Your task to perform on an android device: Open settings on Google Maps Image 0: 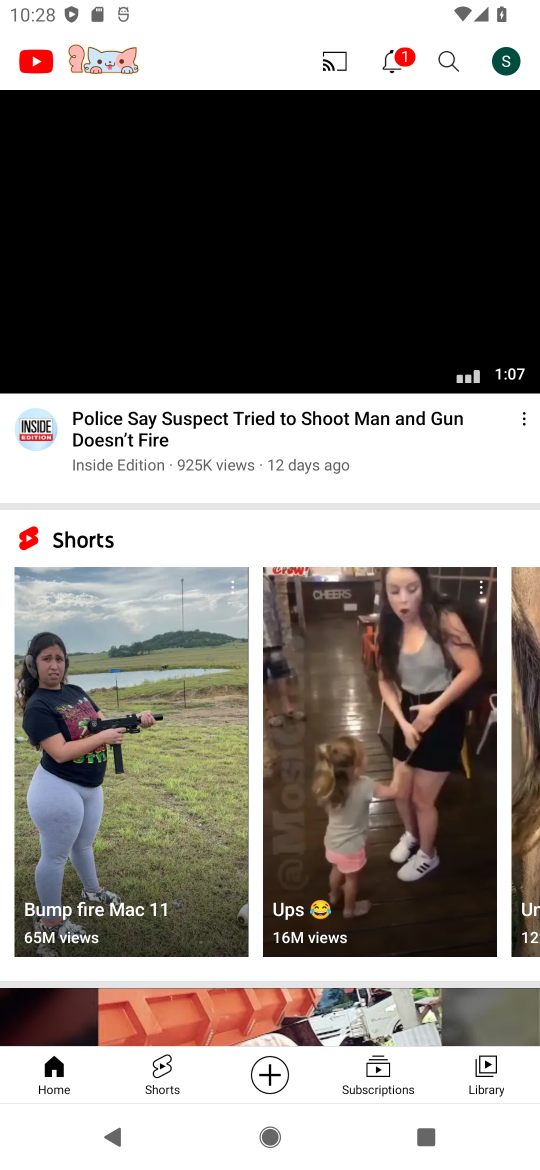
Step 0: press home button
Your task to perform on an android device: Open settings on Google Maps Image 1: 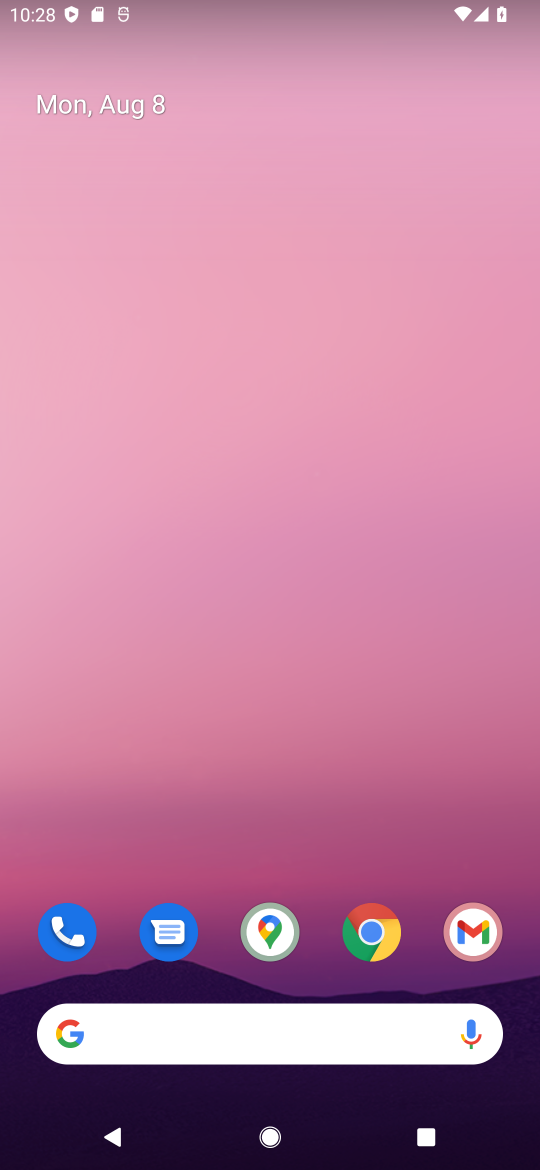
Step 1: click (288, 941)
Your task to perform on an android device: Open settings on Google Maps Image 2: 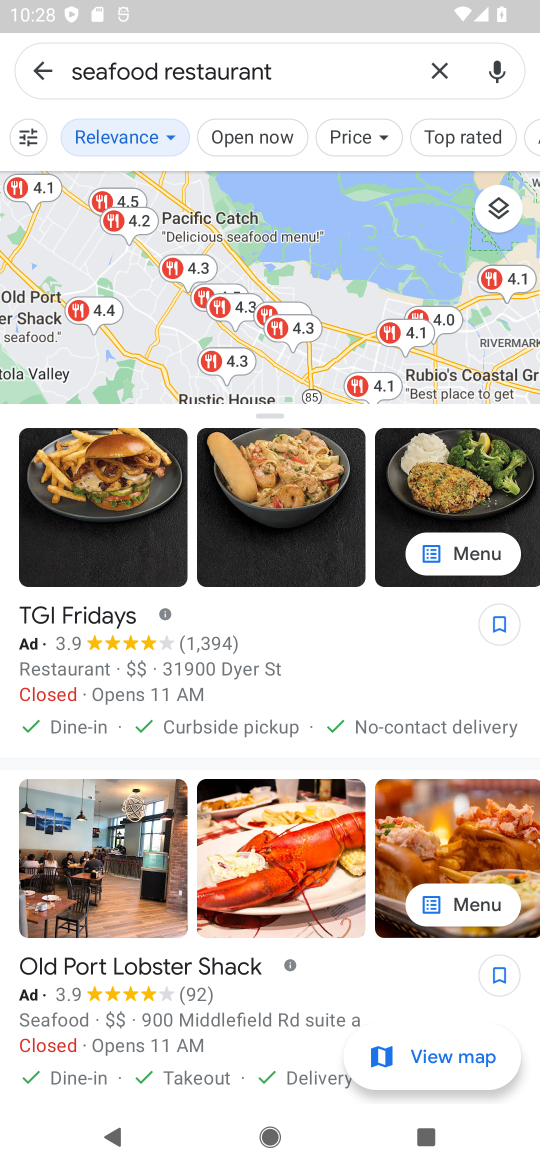
Step 2: click (43, 73)
Your task to perform on an android device: Open settings on Google Maps Image 3: 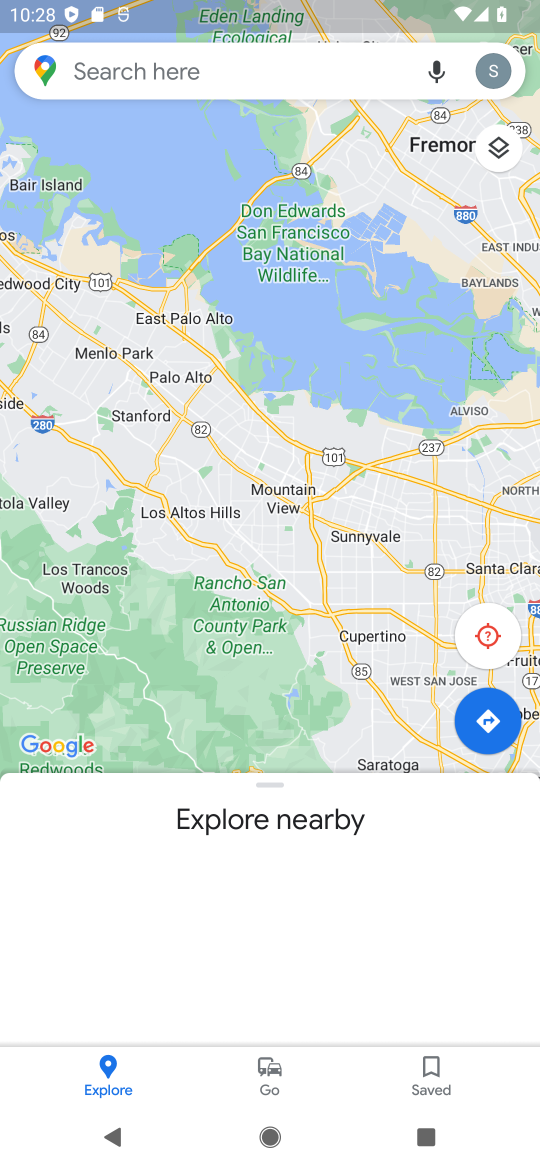
Step 3: click (493, 66)
Your task to perform on an android device: Open settings on Google Maps Image 4: 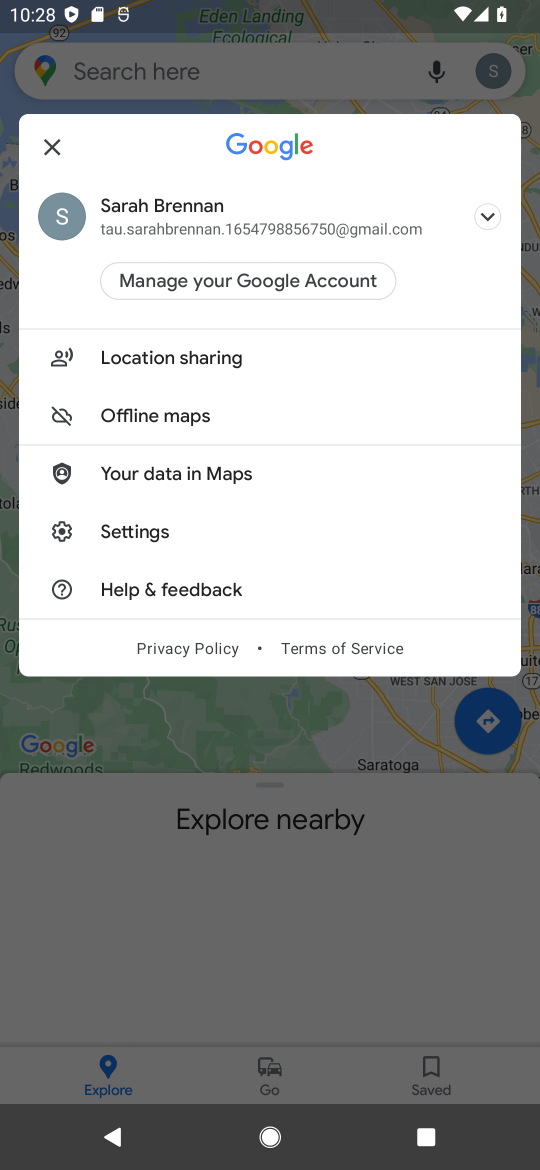
Step 4: click (140, 538)
Your task to perform on an android device: Open settings on Google Maps Image 5: 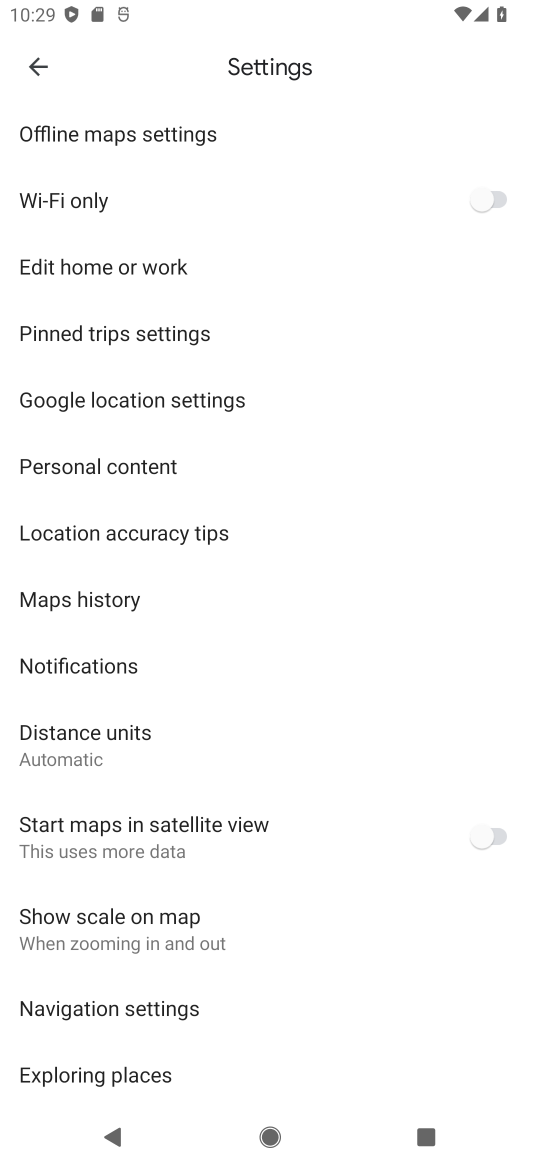
Step 5: task complete